Your task to perform on an android device: turn off improve location accuracy Image 0: 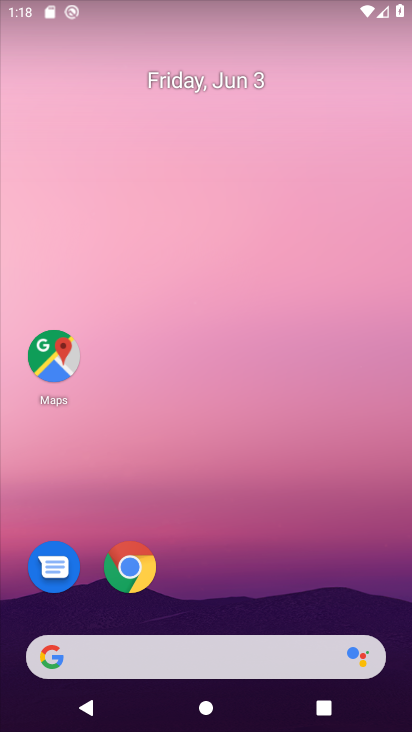
Step 0: drag from (221, 553) to (246, 214)
Your task to perform on an android device: turn off improve location accuracy Image 1: 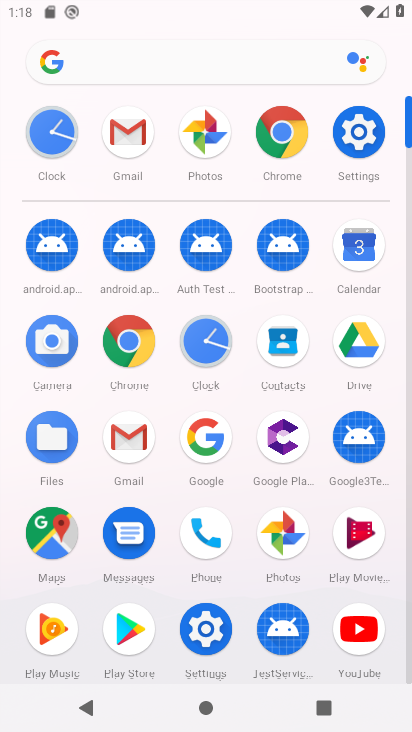
Step 1: click (353, 126)
Your task to perform on an android device: turn off improve location accuracy Image 2: 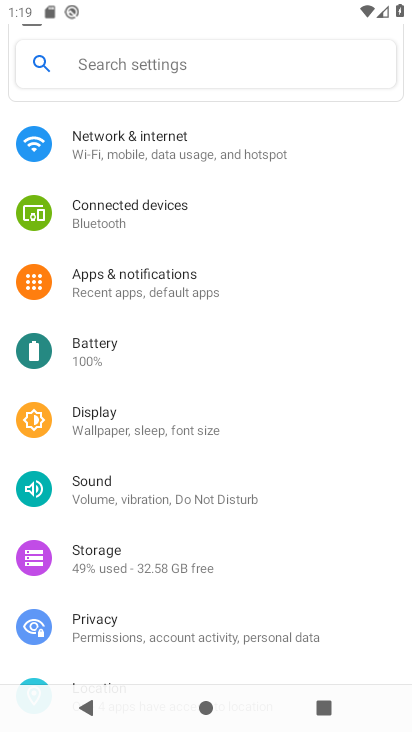
Step 2: drag from (213, 565) to (245, 214)
Your task to perform on an android device: turn off improve location accuracy Image 3: 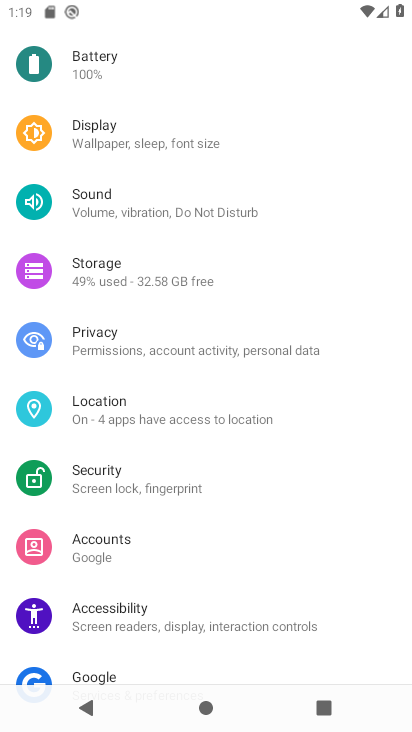
Step 3: click (141, 409)
Your task to perform on an android device: turn off improve location accuracy Image 4: 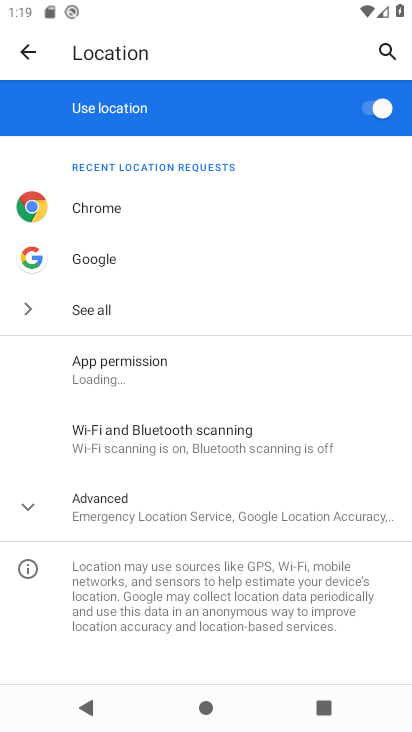
Step 4: click (157, 543)
Your task to perform on an android device: turn off improve location accuracy Image 5: 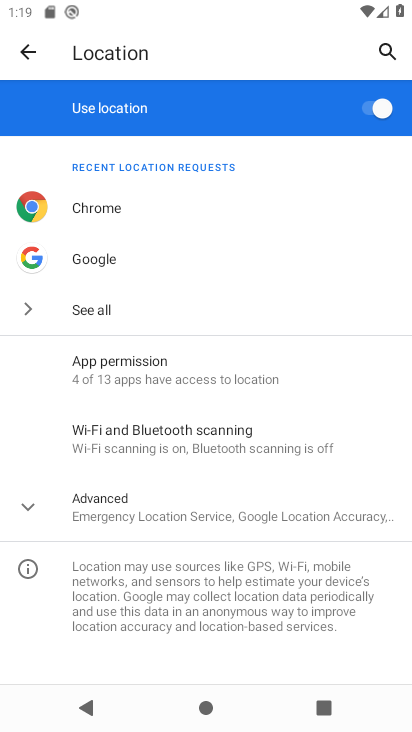
Step 5: click (162, 505)
Your task to perform on an android device: turn off improve location accuracy Image 6: 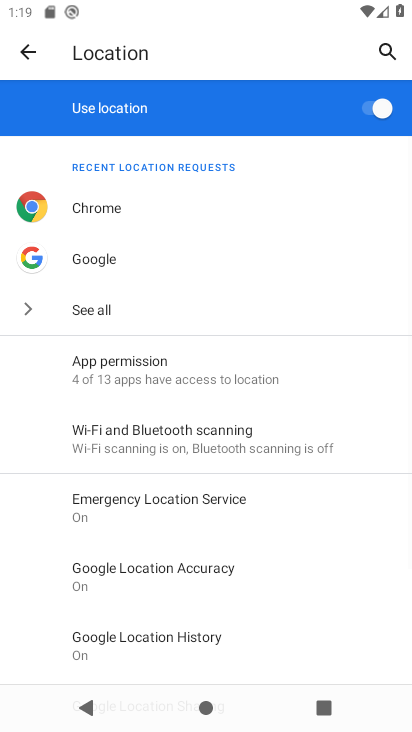
Step 6: drag from (226, 639) to (241, 371)
Your task to perform on an android device: turn off improve location accuracy Image 7: 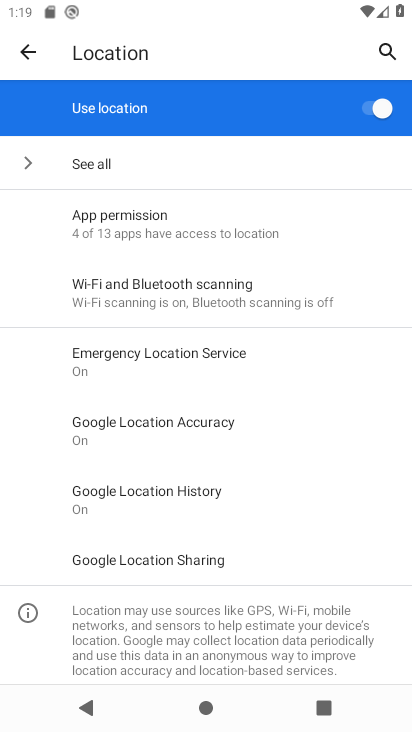
Step 7: click (180, 424)
Your task to perform on an android device: turn off improve location accuracy Image 8: 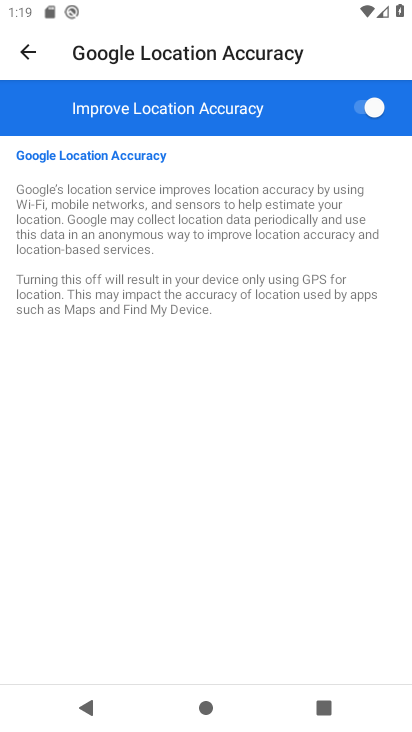
Step 8: click (355, 105)
Your task to perform on an android device: turn off improve location accuracy Image 9: 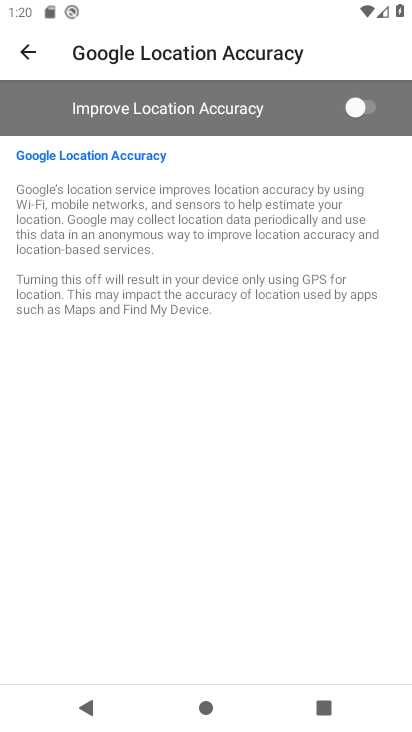
Step 9: task complete